Your task to perform on an android device: open wifi settings Image 0: 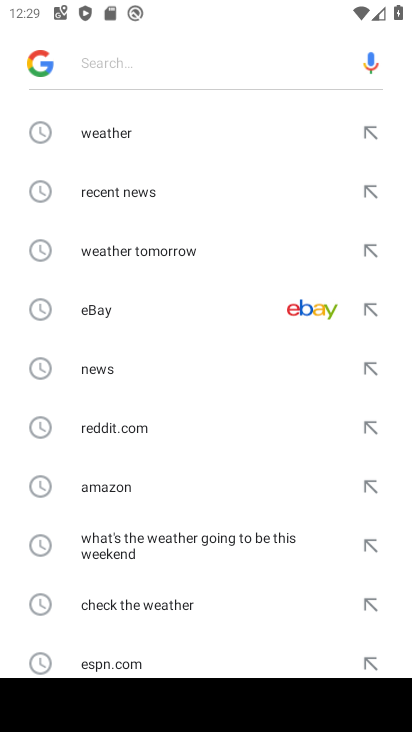
Step 0: press home button
Your task to perform on an android device: open wifi settings Image 1: 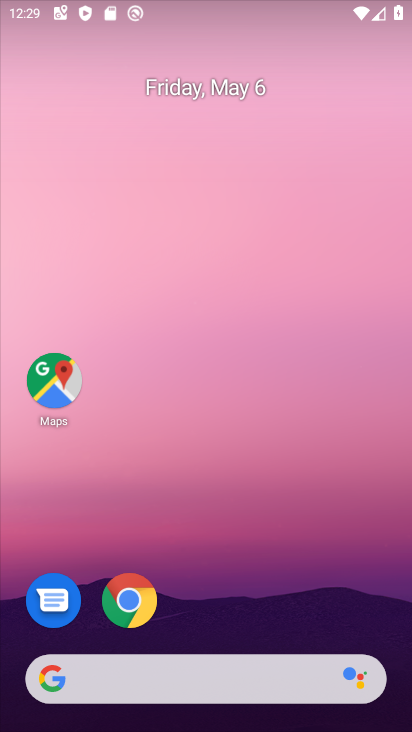
Step 1: drag from (344, 612) to (323, 103)
Your task to perform on an android device: open wifi settings Image 2: 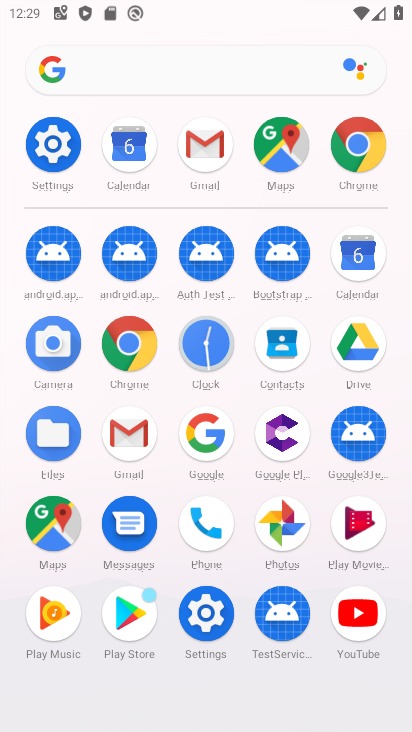
Step 2: click (56, 137)
Your task to perform on an android device: open wifi settings Image 3: 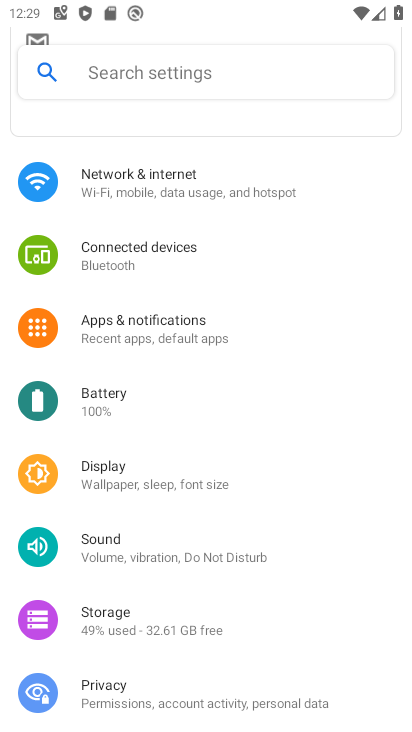
Step 3: click (208, 209)
Your task to perform on an android device: open wifi settings Image 4: 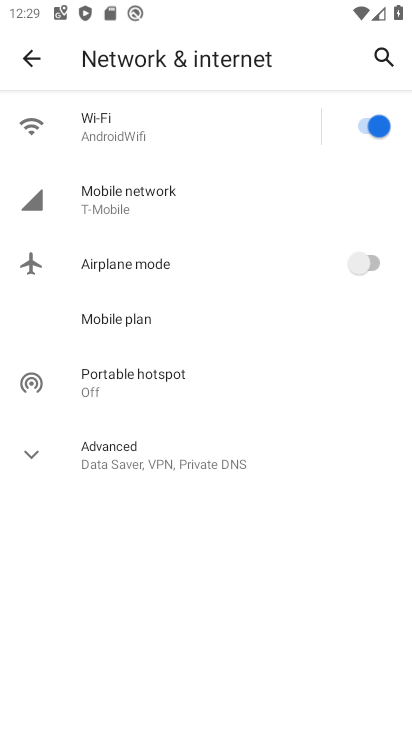
Step 4: click (192, 139)
Your task to perform on an android device: open wifi settings Image 5: 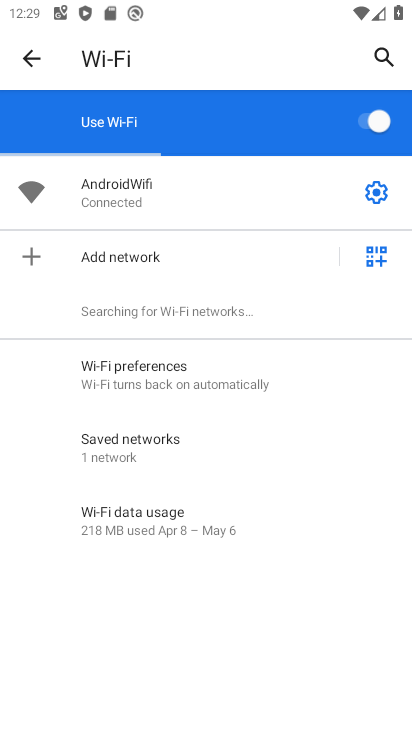
Step 5: task complete